Your task to perform on an android device: move an email to a new category in the gmail app Image 0: 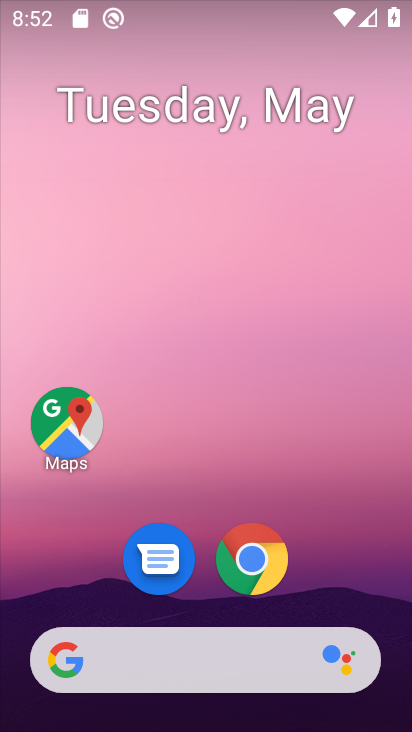
Step 0: drag from (349, 366) to (371, 0)
Your task to perform on an android device: move an email to a new category in the gmail app Image 1: 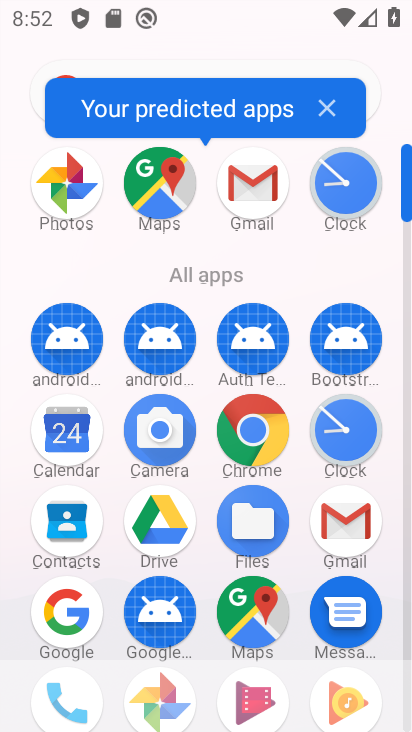
Step 1: click (355, 528)
Your task to perform on an android device: move an email to a new category in the gmail app Image 2: 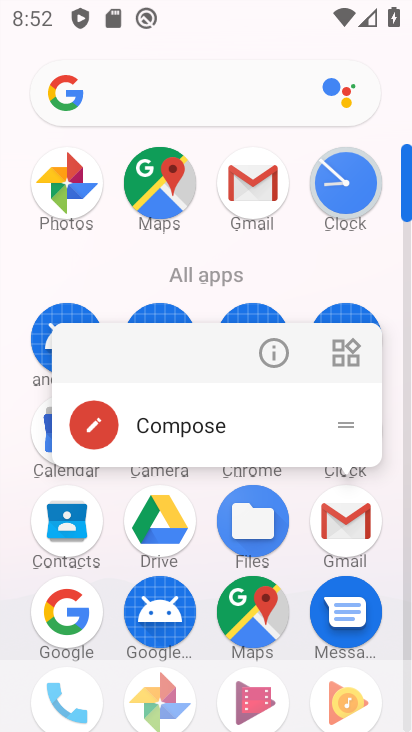
Step 2: click (356, 525)
Your task to perform on an android device: move an email to a new category in the gmail app Image 3: 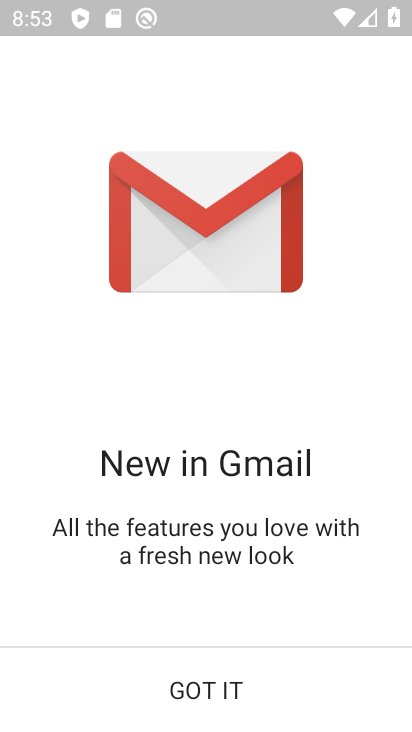
Step 3: click (228, 686)
Your task to perform on an android device: move an email to a new category in the gmail app Image 4: 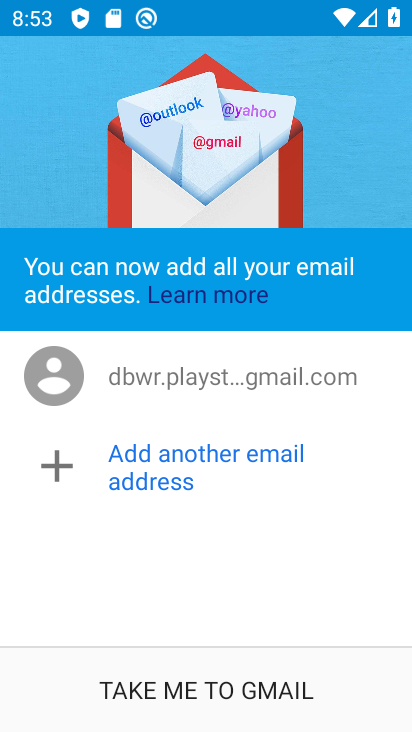
Step 4: click (228, 678)
Your task to perform on an android device: move an email to a new category in the gmail app Image 5: 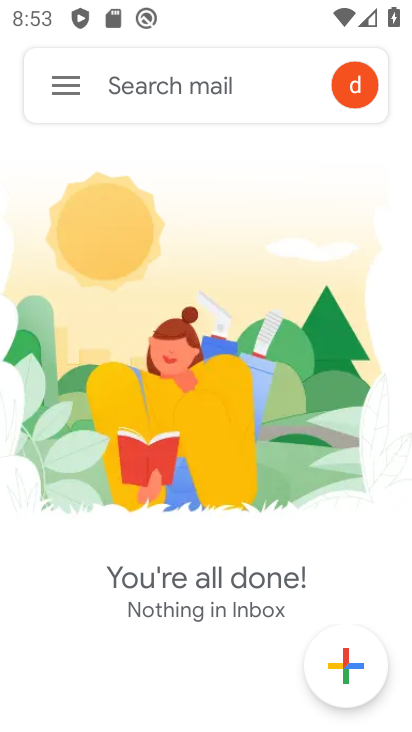
Step 5: task complete